Your task to perform on an android device: Go to Maps Image 0: 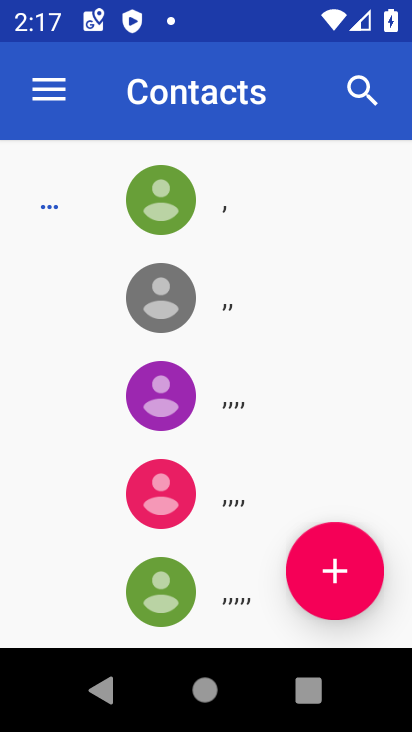
Step 0: press home button
Your task to perform on an android device: Go to Maps Image 1: 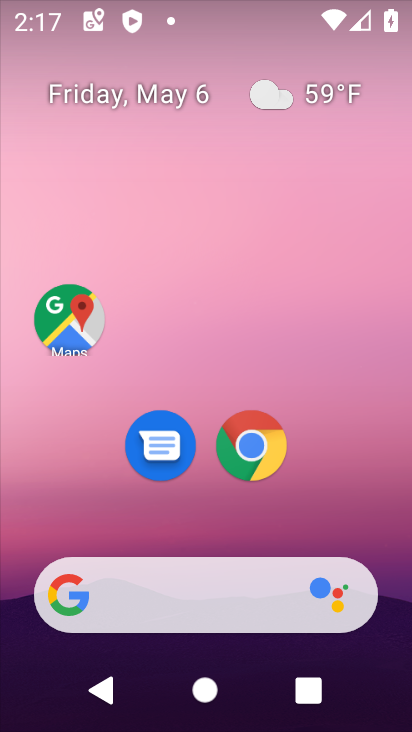
Step 1: drag from (367, 535) to (219, 147)
Your task to perform on an android device: Go to Maps Image 2: 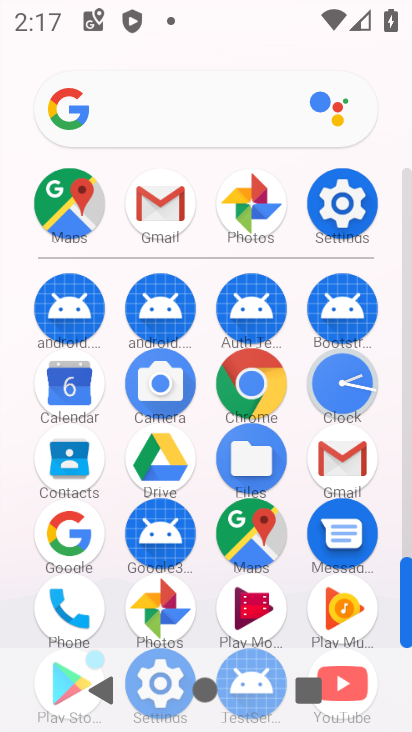
Step 2: click (66, 202)
Your task to perform on an android device: Go to Maps Image 3: 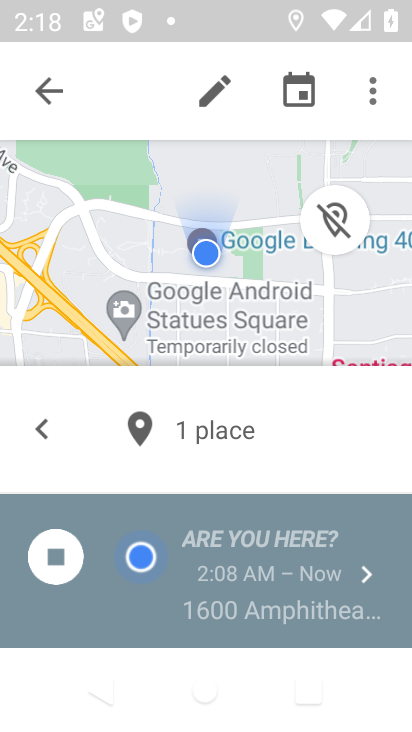
Step 3: task complete